Your task to perform on an android device: Open Wikipedia Image 0: 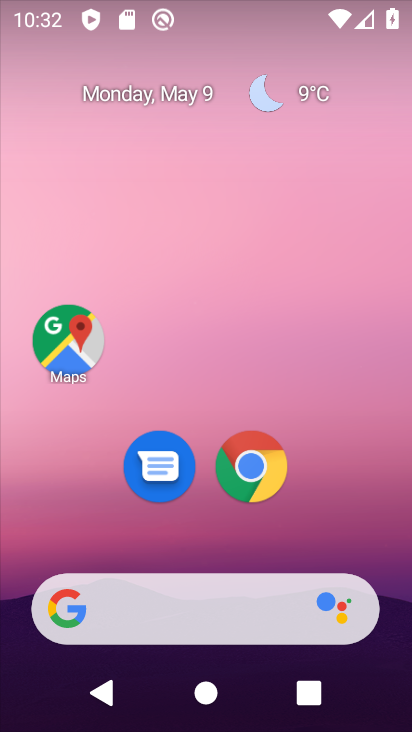
Step 0: click (272, 484)
Your task to perform on an android device: Open Wikipedia Image 1: 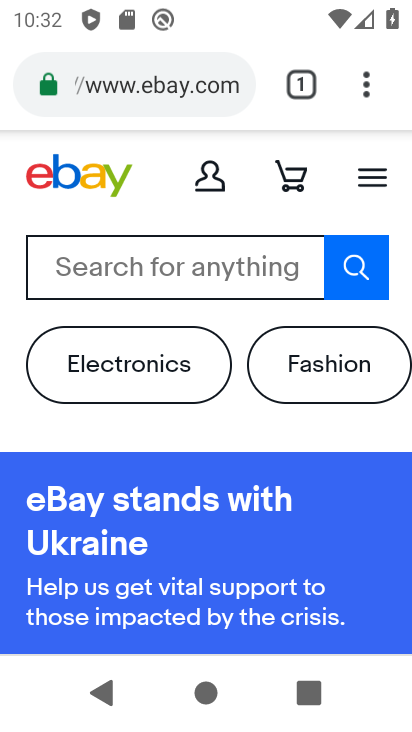
Step 1: click (313, 84)
Your task to perform on an android device: Open Wikipedia Image 2: 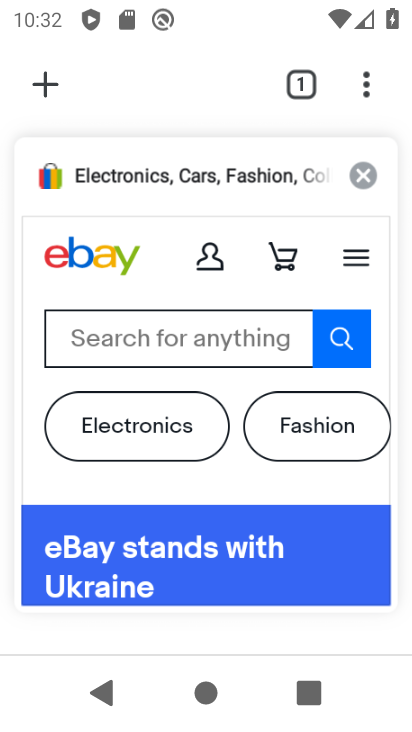
Step 2: click (369, 166)
Your task to perform on an android device: Open Wikipedia Image 3: 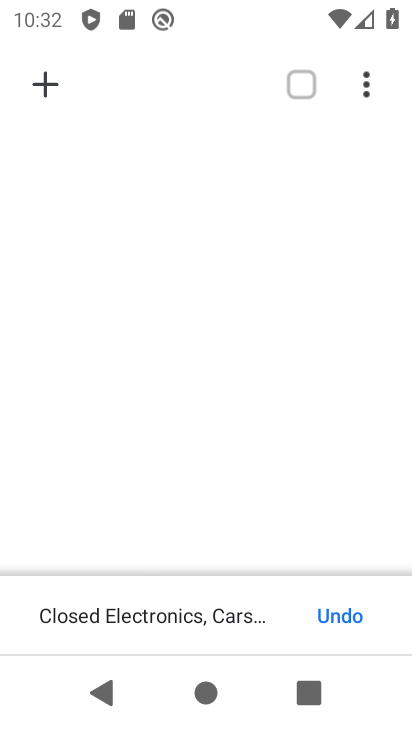
Step 3: click (61, 94)
Your task to perform on an android device: Open Wikipedia Image 4: 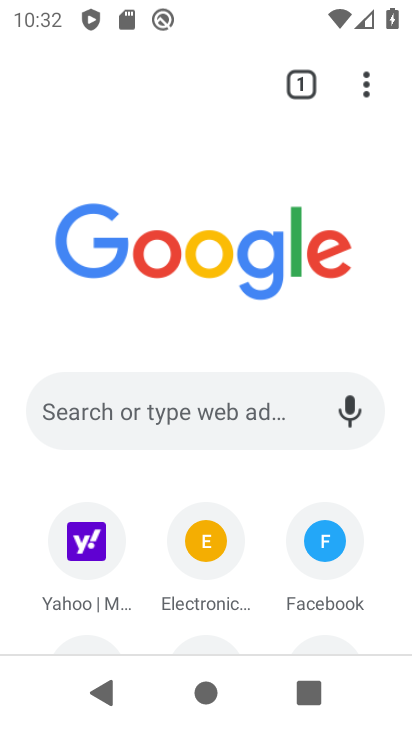
Step 4: drag from (247, 472) to (205, 184)
Your task to perform on an android device: Open Wikipedia Image 5: 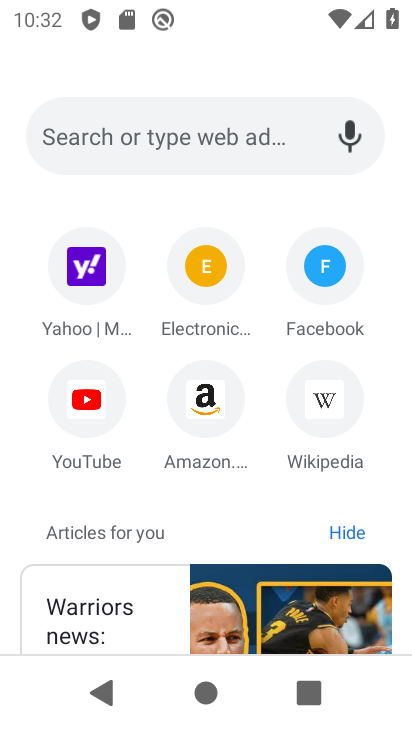
Step 5: click (325, 382)
Your task to perform on an android device: Open Wikipedia Image 6: 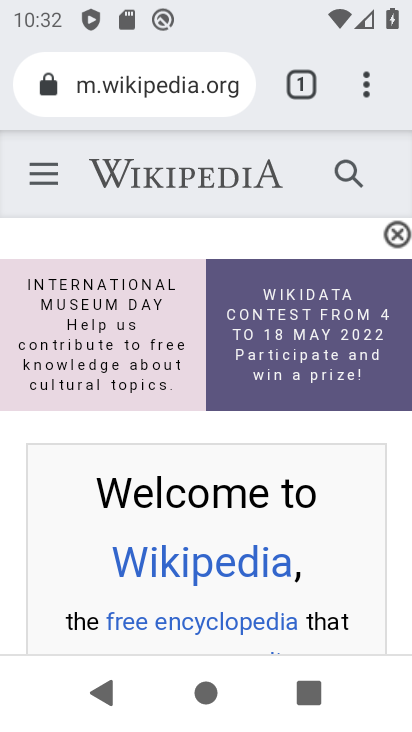
Step 6: task complete